Your task to perform on an android device: find photos in the google photos app Image 0: 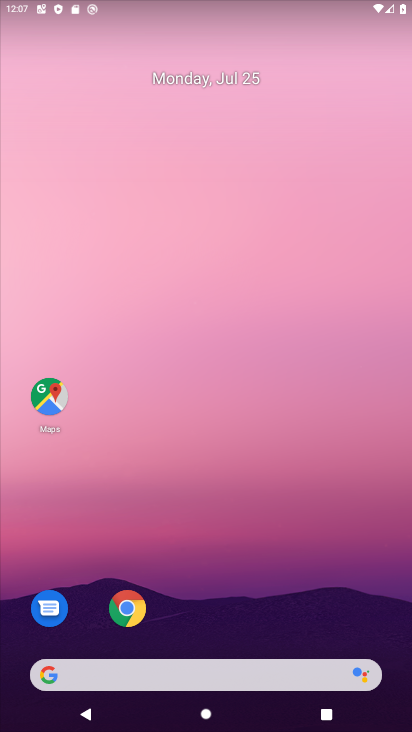
Step 0: drag from (271, 634) to (220, 1)
Your task to perform on an android device: find photos in the google photos app Image 1: 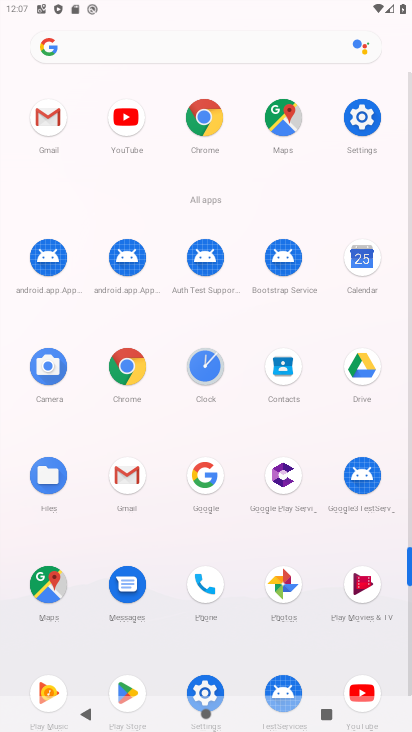
Step 1: click (281, 581)
Your task to perform on an android device: find photos in the google photos app Image 2: 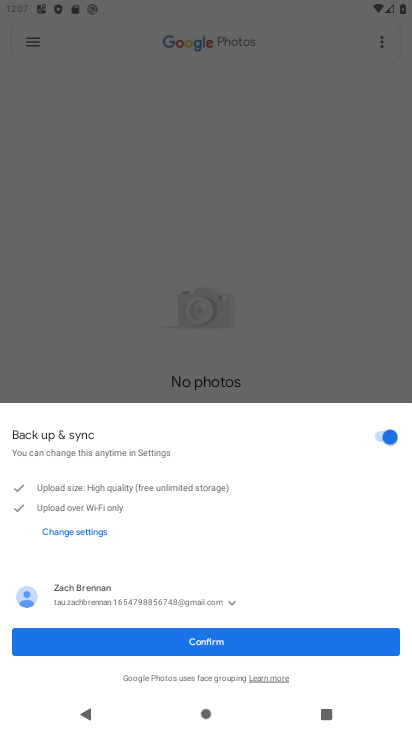
Step 2: click (237, 638)
Your task to perform on an android device: find photos in the google photos app Image 3: 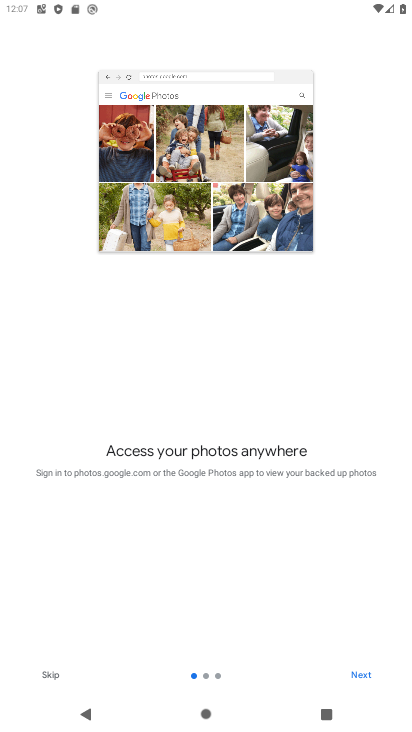
Step 3: click (37, 677)
Your task to perform on an android device: find photos in the google photos app Image 4: 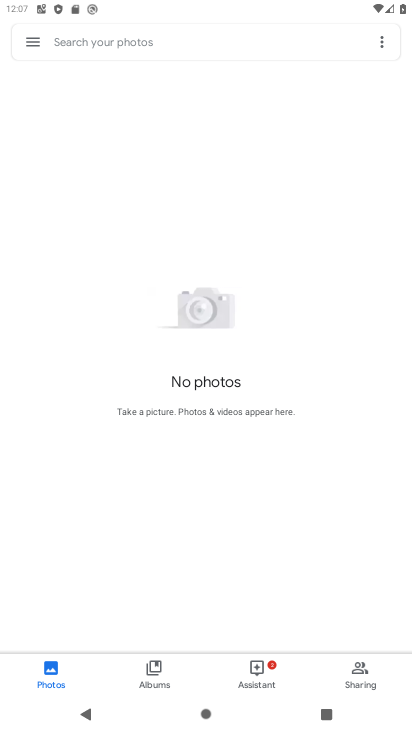
Step 4: click (48, 682)
Your task to perform on an android device: find photos in the google photos app Image 5: 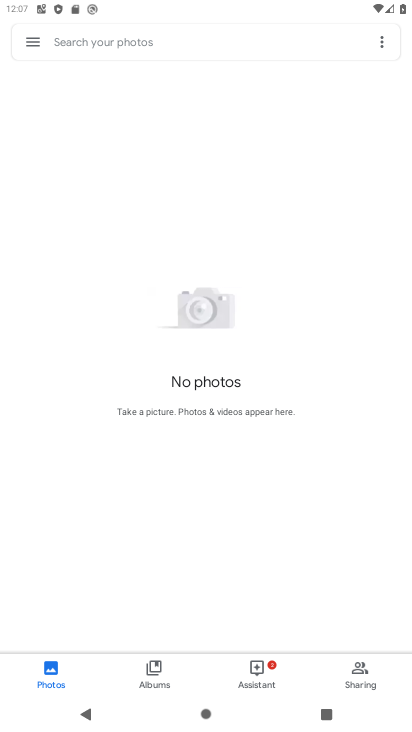
Step 5: task complete